Your task to perform on an android device: Do I have any events today? Image 0: 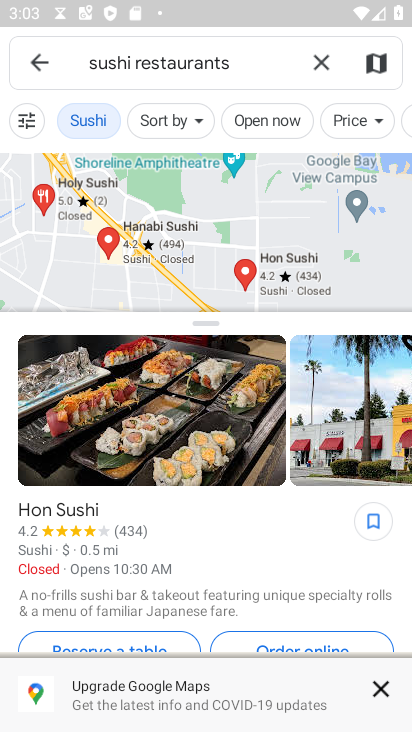
Step 0: press home button
Your task to perform on an android device: Do I have any events today? Image 1: 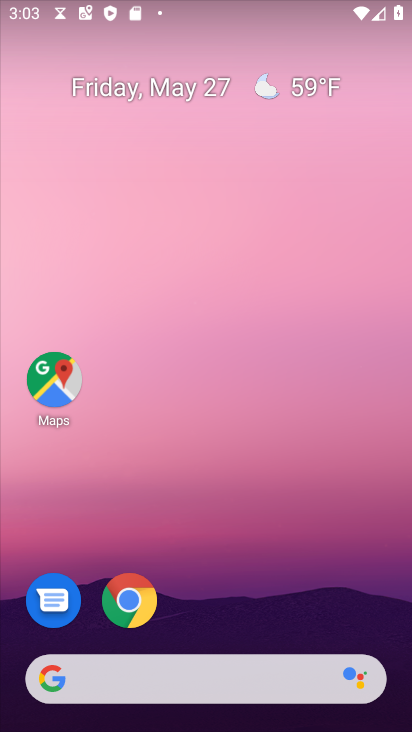
Step 1: drag from (270, 593) to (245, 144)
Your task to perform on an android device: Do I have any events today? Image 2: 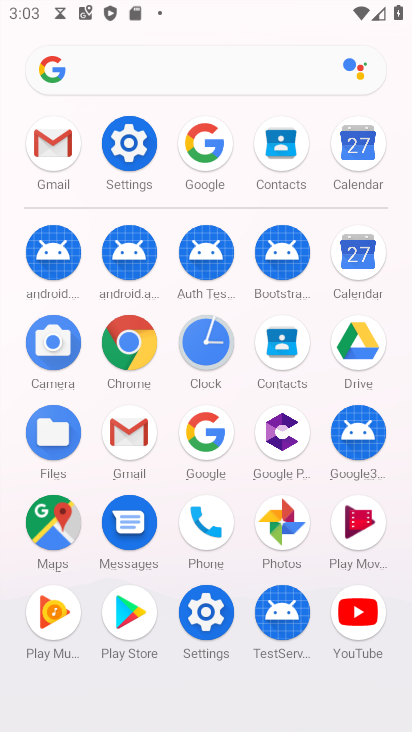
Step 2: click (359, 146)
Your task to perform on an android device: Do I have any events today? Image 3: 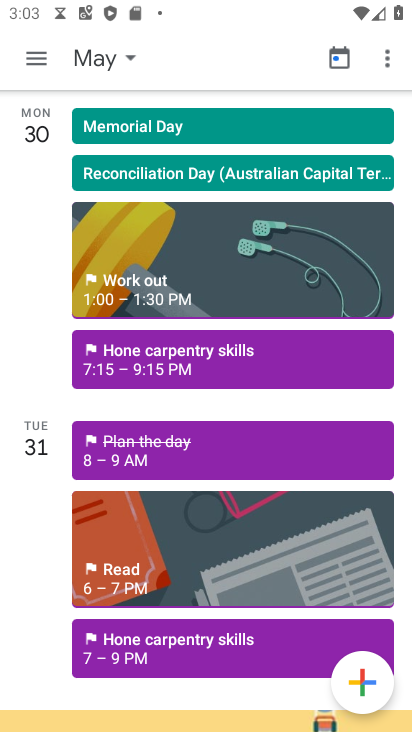
Step 3: click (341, 56)
Your task to perform on an android device: Do I have any events today? Image 4: 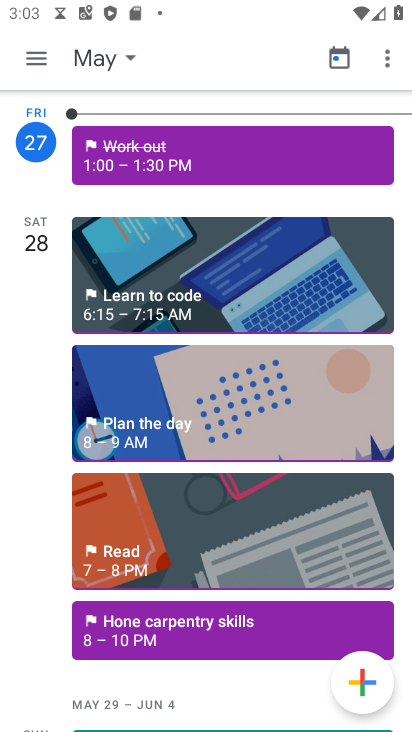
Step 4: click (203, 153)
Your task to perform on an android device: Do I have any events today? Image 5: 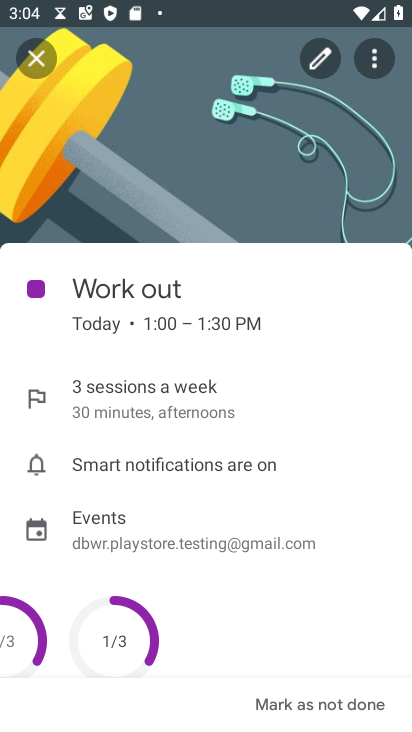
Step 5: task complete